Your task to perform on an android device: turn on javascript in the chrome app Image 0: 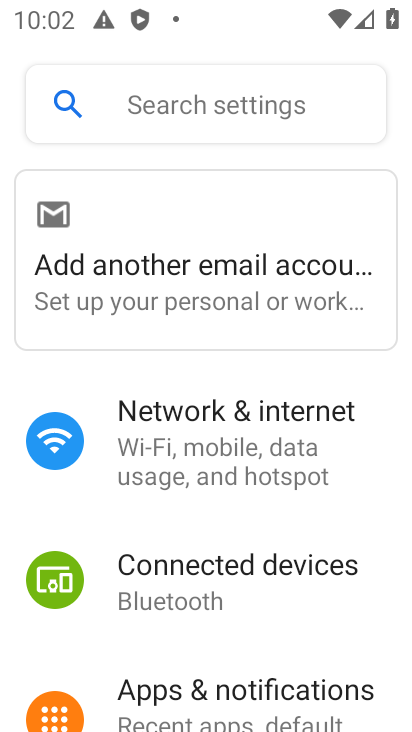
Step 0: press home button
Your task to perform on an android device: turn on javascript in the chrome app Image 1: 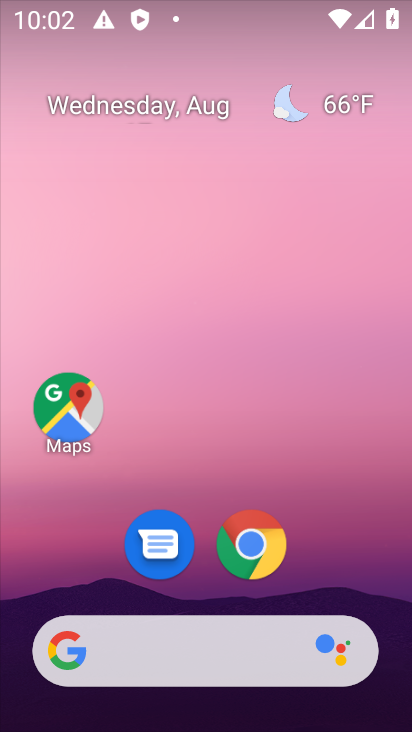
Step 1: drag from (219, 450) to (263, 114)
Your task to perform on an android device: turn on javascript in the chrome app Image 2: 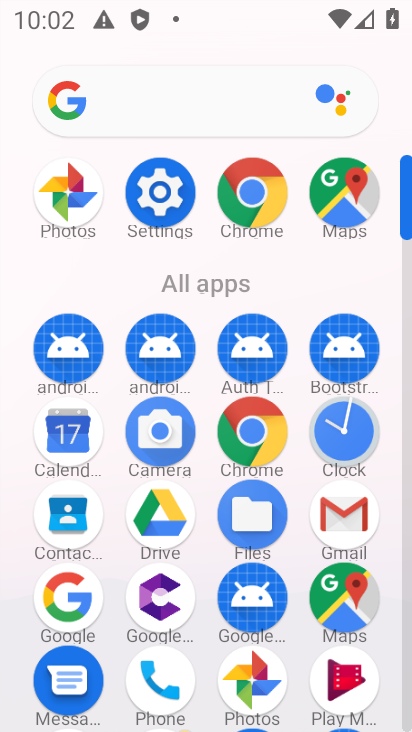
Step 2: click (267, 213)
Your task to perform on an android device: turn on javascript in the chrome app Image 3: 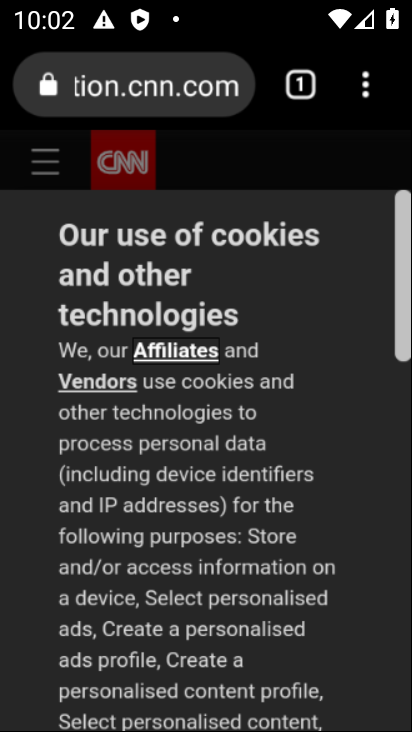
Step 3: task complete